Your task to perform on an android device: What's the latest technology news? Image 0: 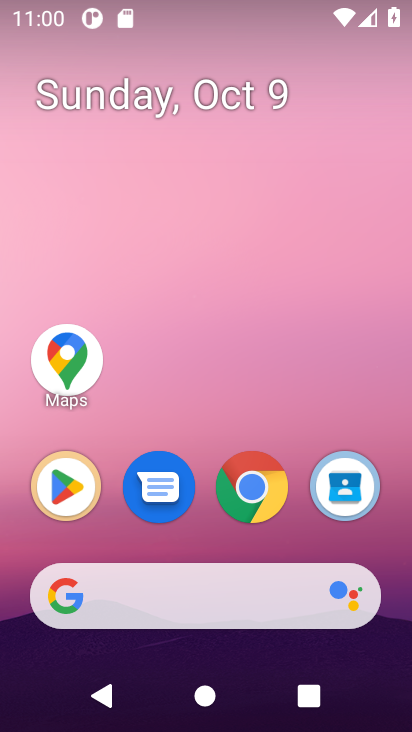
Step 0: click (247, 498)
Your task to perform on an android device: What's the latest technology news? Image 1: 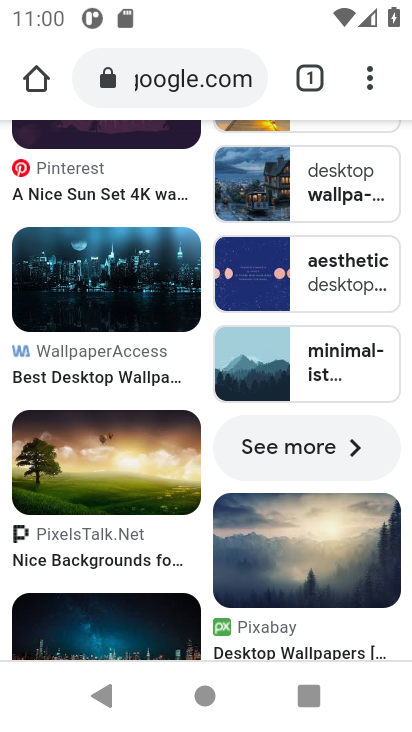
Step 1: click (170, 76)
Your task to perform on an android device: What's the latest technology news? Image 2: 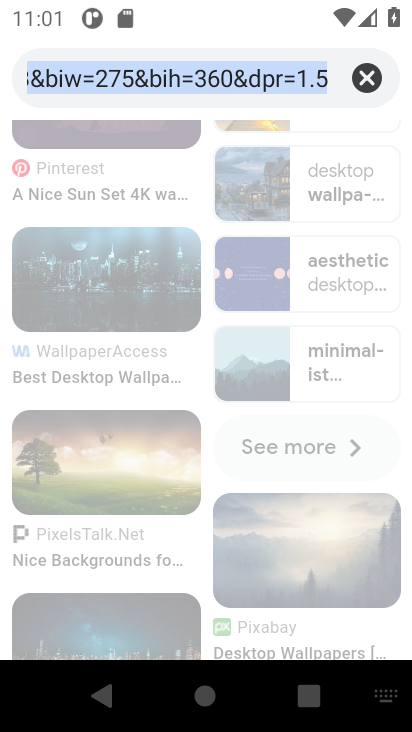
Step 2: type "latest technology news"
Your task to perform on an android device: What's the latest technology news? Image 3: 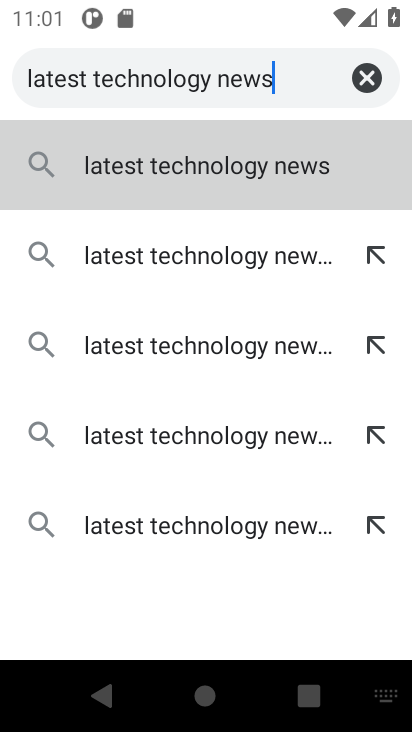
Step 3: type ""
Your task to perform on an android device: What's the latest technology news? Image 4: 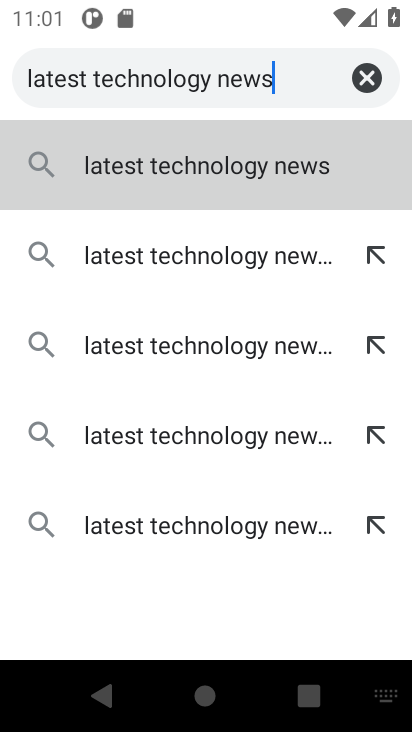
Step 4: press enter
Your task to perform on an android device: What's the latest technology news? Image 5: 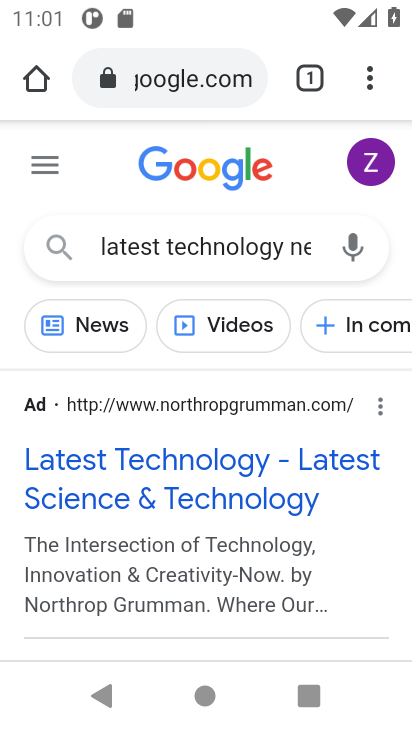
Step 5: click (109, 333)
Your task to perform on an android device: What's the latest technology news? Image 6: 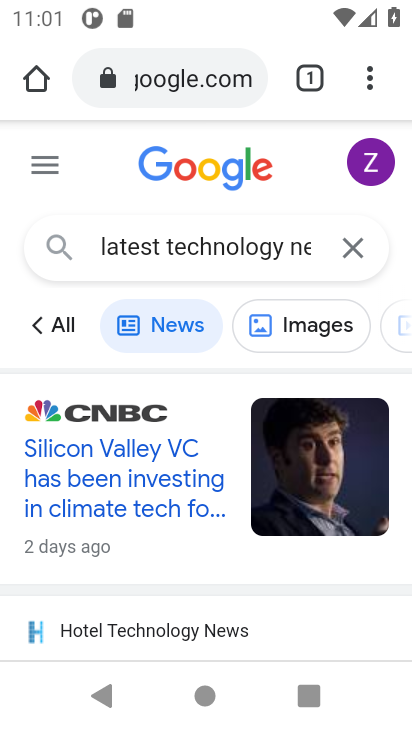
Step 6: task complete